Your task to perform on an android device: Show me recent news Image 0: 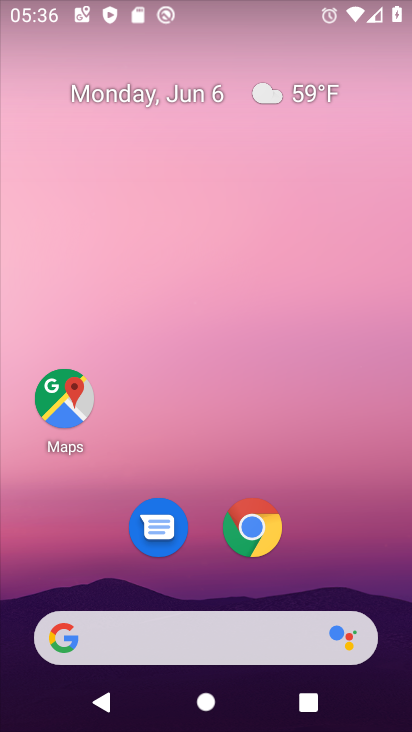
Step 0: drag from (1, 285) to (407, 302)
Your task to perform on an android device: Show me recent news Image 1: 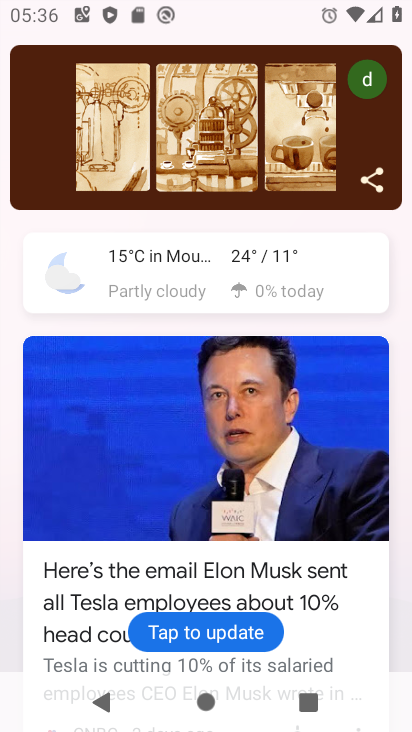
Step 1: task complete